Your task to perform on an android device: What's the weather today? Image 0: 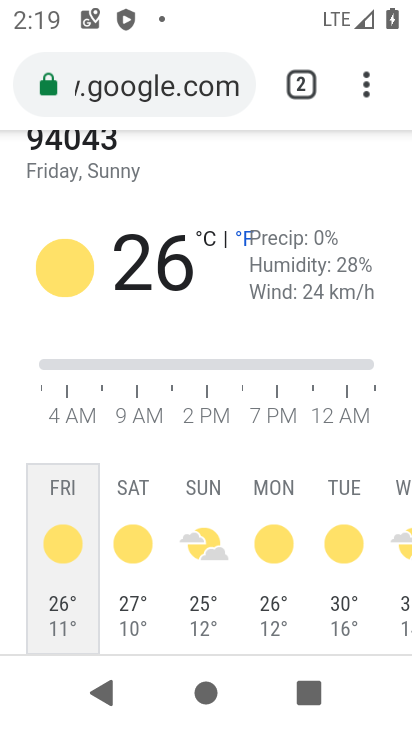
Step 0: click (173, 82)
Your task to perform on an android device: What's the weather today? Image 1: 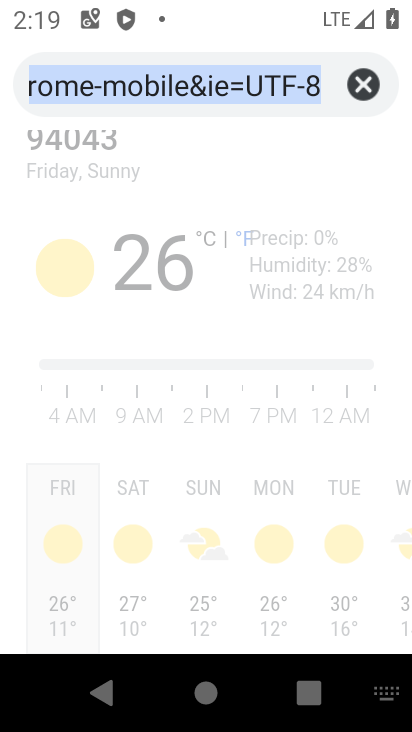
Step 1: click (372, 84)
Your task to perform on an android device: What's the weather today? Image 2: 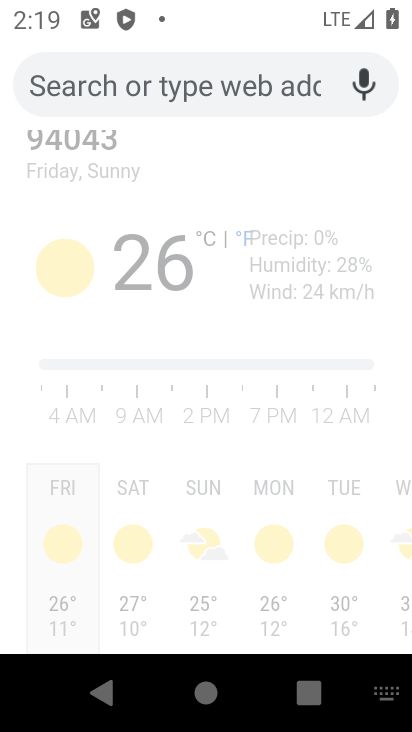
Step 2: type "What's the weather today?"
Your task to perform on an android device: What's the weather today? Image 3: 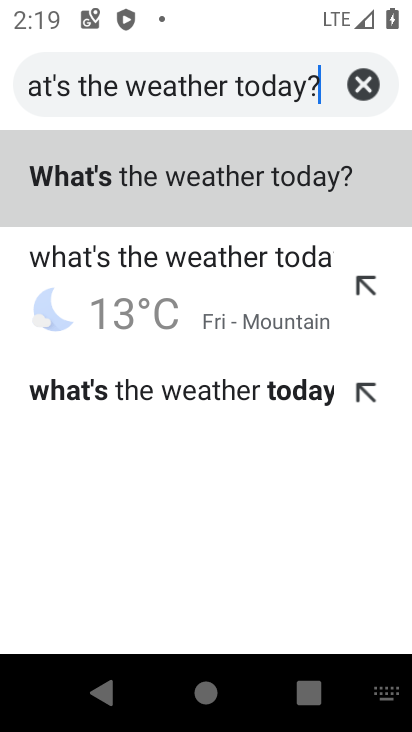
Step 3: click (180, 169)
Your task to perform on an android device: What's the weather today? Image 4: 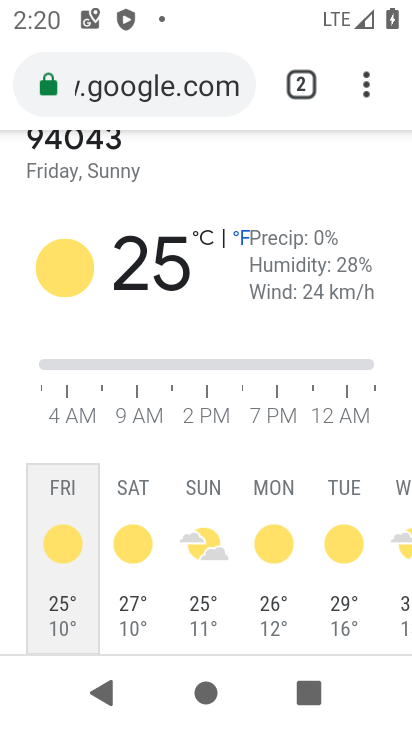
Step 4: task complete